Your task to perform on an android device: turn on showing notifications on the lock screen Image 0: 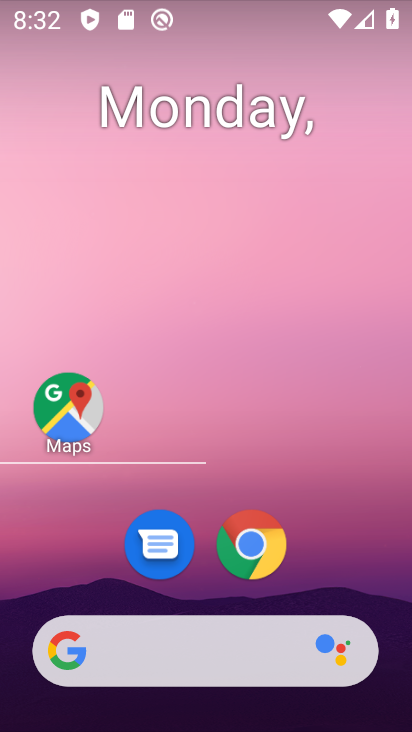
Step 0: press home button
Your task to perform on an android device: turn on showing notifications on the lock screen Image 1: 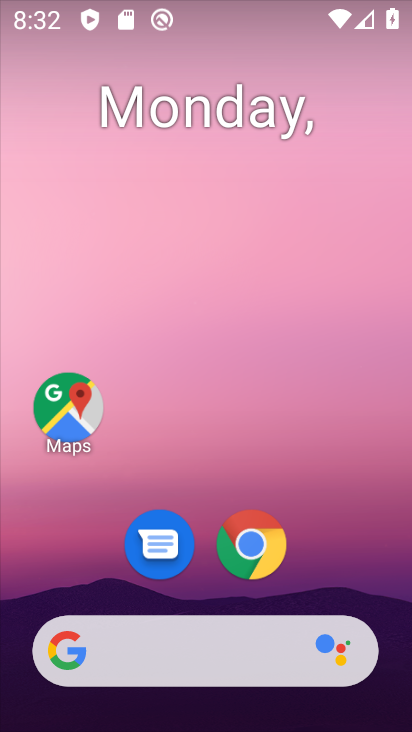
Step 1: drag from (210, 591) to (259, 52)
Your task to perform on an android device: turn on showing notifications on the lock screen Image 2: 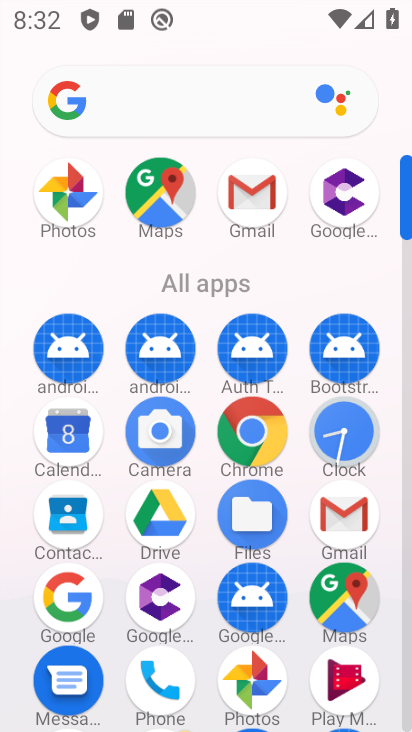
Step 2: drag from (203, 560) to (207, 62)
Your task to perform on an android device: turn on showing notifications on the lock screen Image 3: 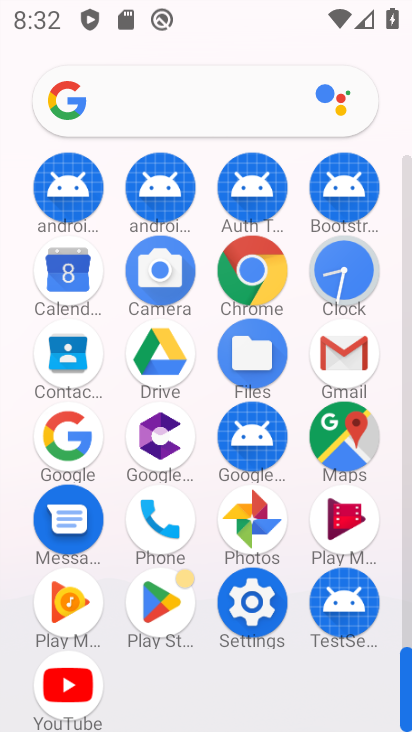
Step 3: click (251, 592)
Your task to perform on an android device: turn on showing notifications on the lock screen Image 4: 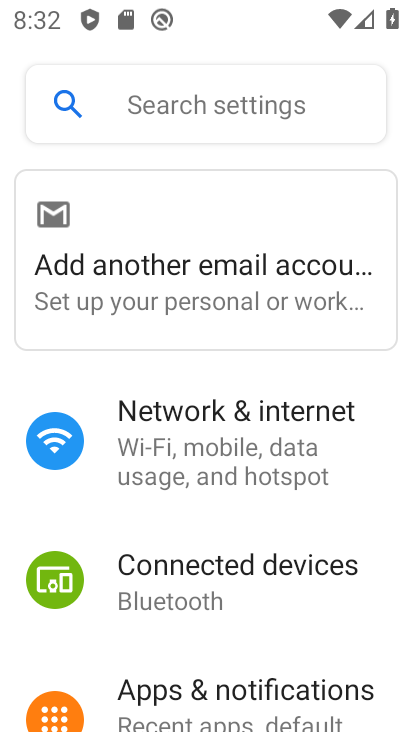
Step 4: click (171, 699)
Your task to perform on an android device: turn on showing notifications on the lock screen Image 5: 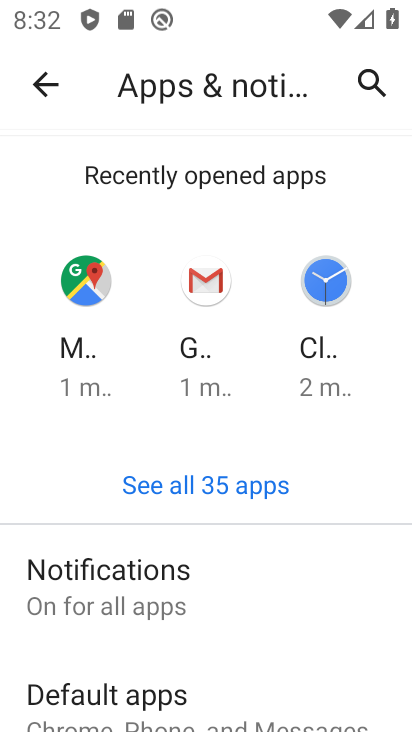
Step 5: click (200, 578)
Your task to perform on an android device: turn on showing notifications on the lock screen Image 6: 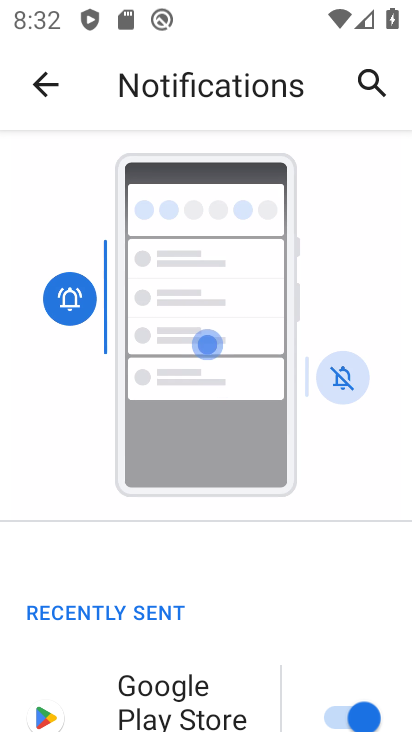
Step 6: drag from (254, 638) to (319, 110)
Your task to perform on an android device: turn on showing notifications on the lock screen Image 7: 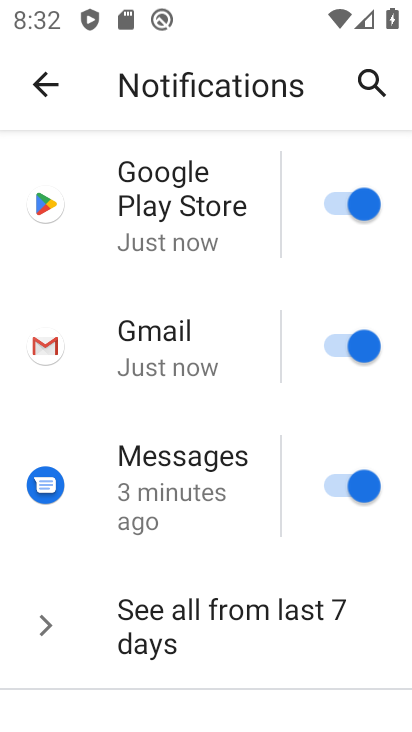
Step 7: drag from (257, 677) to (279, 125)
Your task to perform on an android device: turn on showing notifications on the lock screen Image 8: 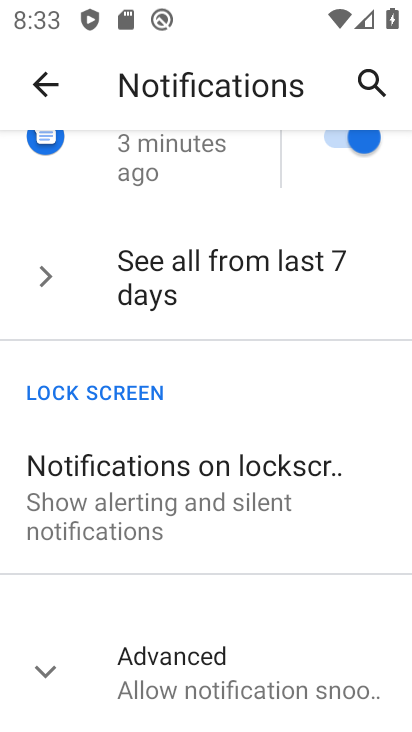
Step 8: click (202, 482)
Your task to perform on an android device: turn on showing notifications on the lock screen Image 9: 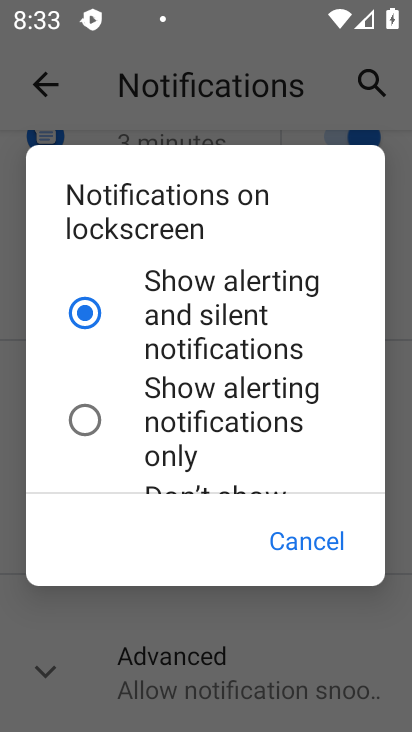
Step 9: click (87, 415)
Your task to perform on an android device: turn on showing notifications on the lock screen Image 10: 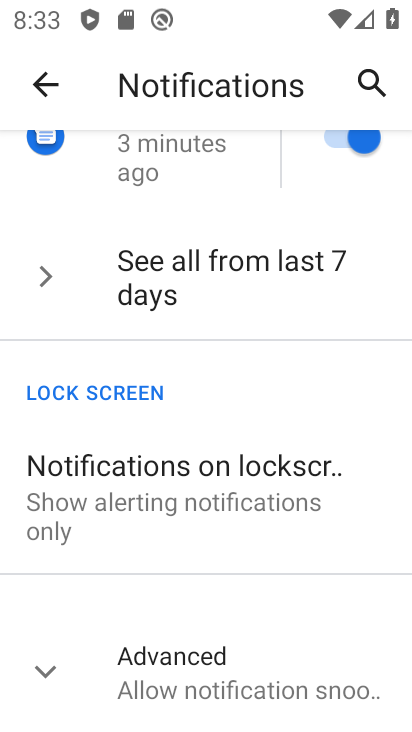
Step 10: click (240, 485)
Your task to perform on an android device: turn on showing notifications on the lock screen Image 11: 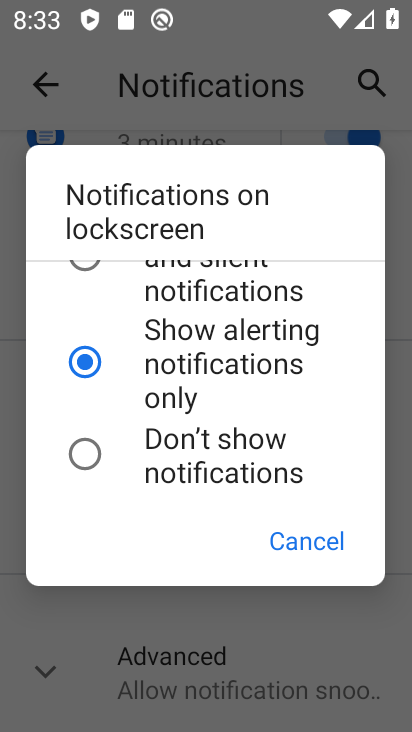
Step 11: task complete